Your task to perform on an android device: Add dell alienware to the cart on walmart, then select checkout. Image 0: 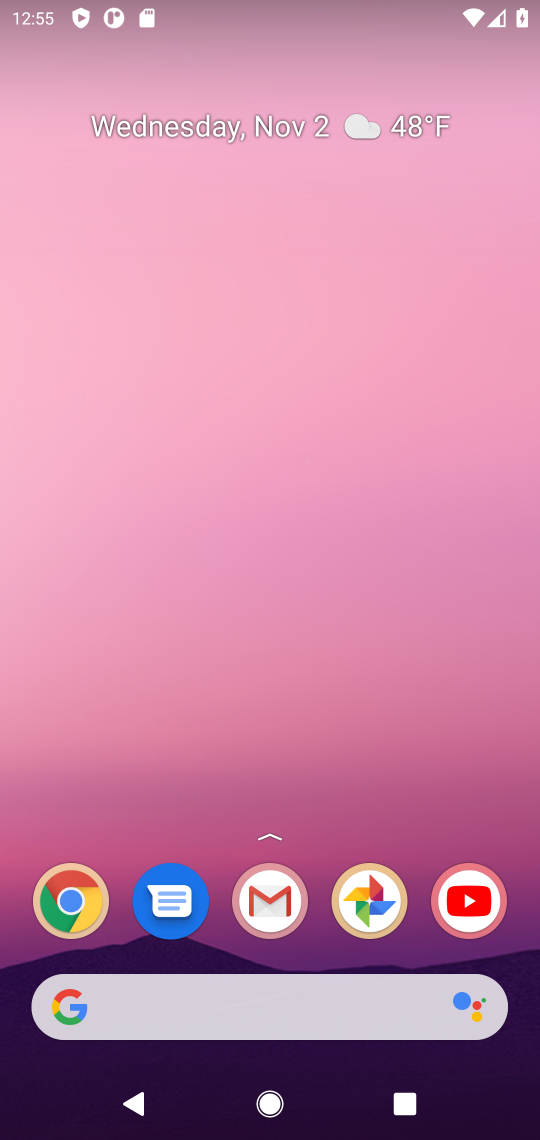
Step 0: drag from (320, 959) to (490, 155)
Your task to perform on an android device: Add dell alienware to the cart on walmart, then select checkout. Image 1: 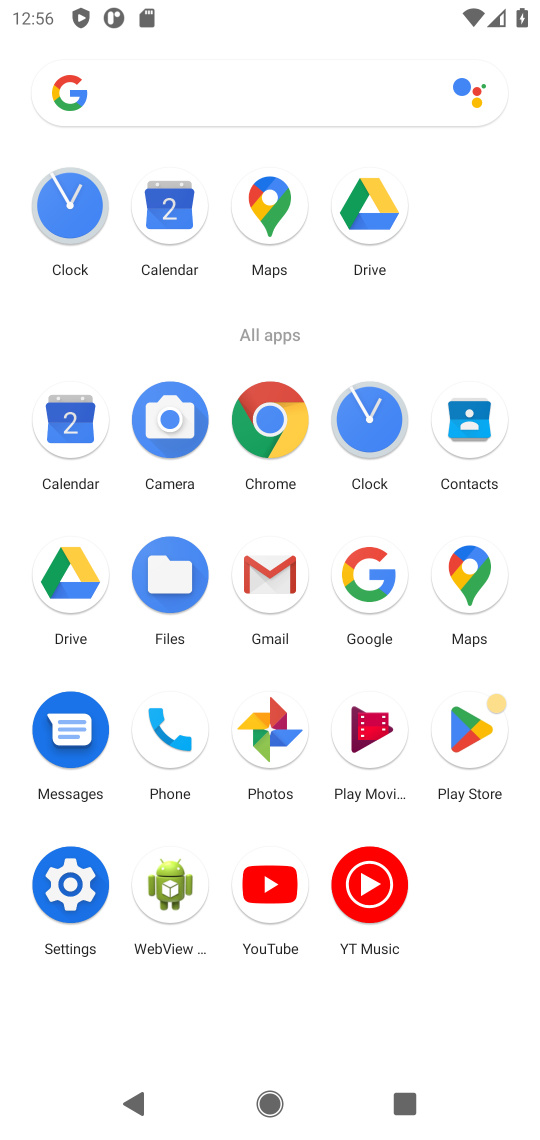
Step 1: click (265, 427)
Your task to perform on an android device: Add dell alienware to the cart on walmart, then select checkout. Image 2: 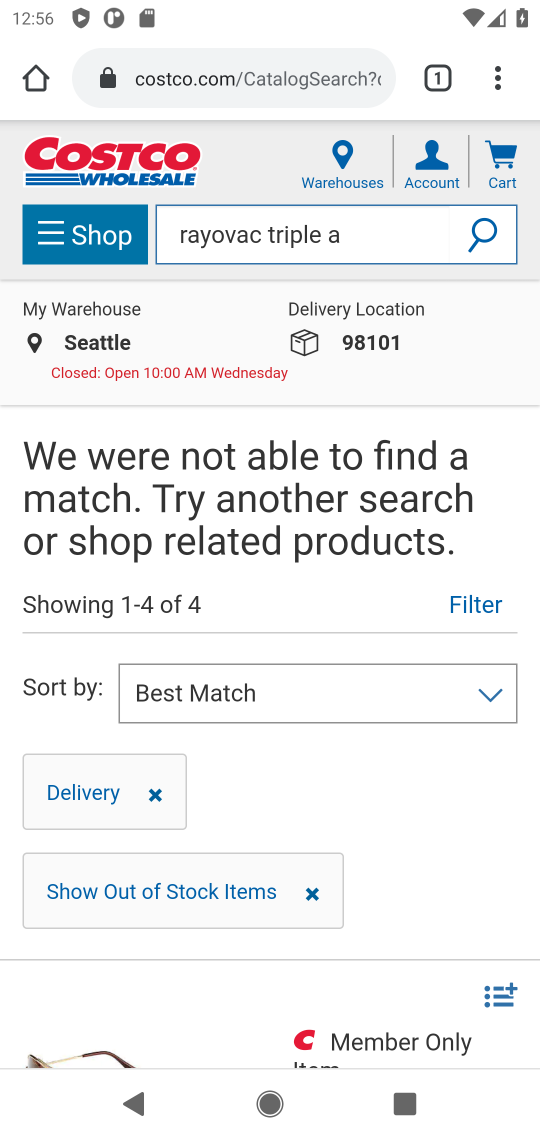
Step 2: click (285, 78)
Your task to perform on an android device: Add dell alienware to the cart on walmart, then select checkout. Image 3: 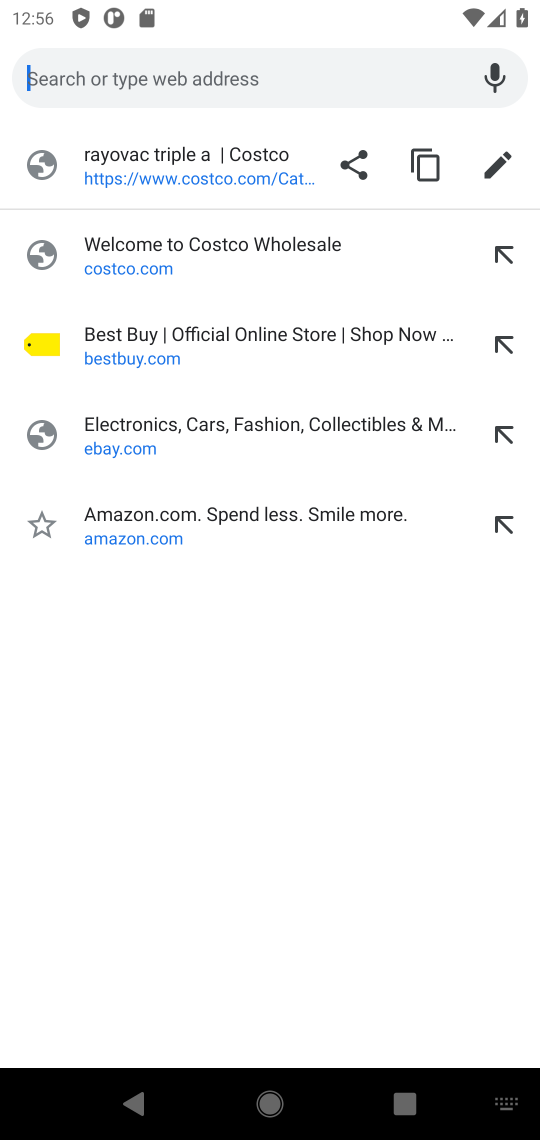
Step 3: type "walmart.com"
Your task to perform on an android device: Add dell alienware to the cart on walmart, then select checkout. Image 4: 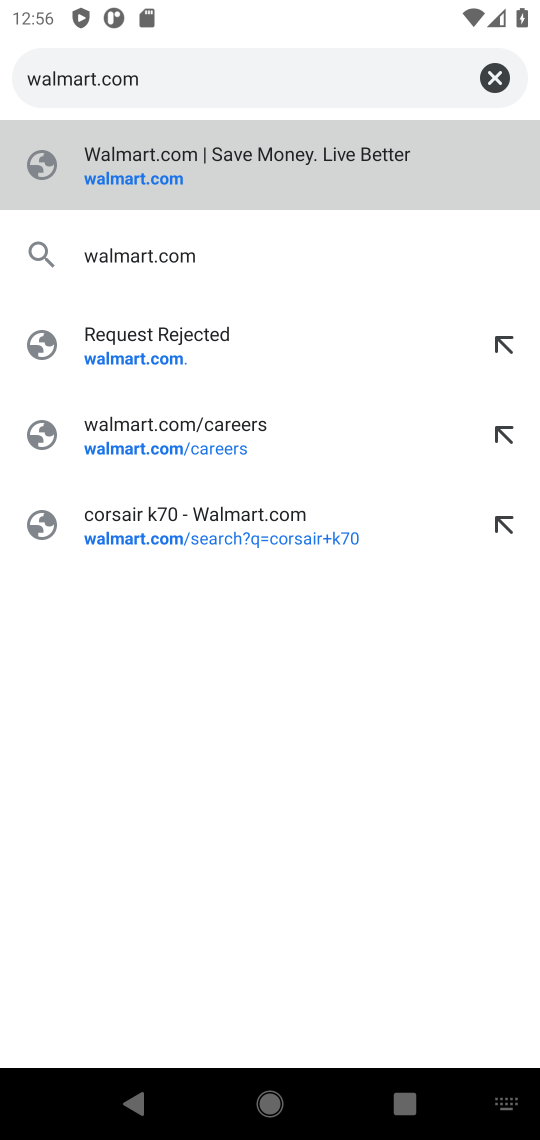
Step 4: press enter
Your task to perform on an android device: Add dell alienware to the cart on walmart, then select checkout. Image 5: 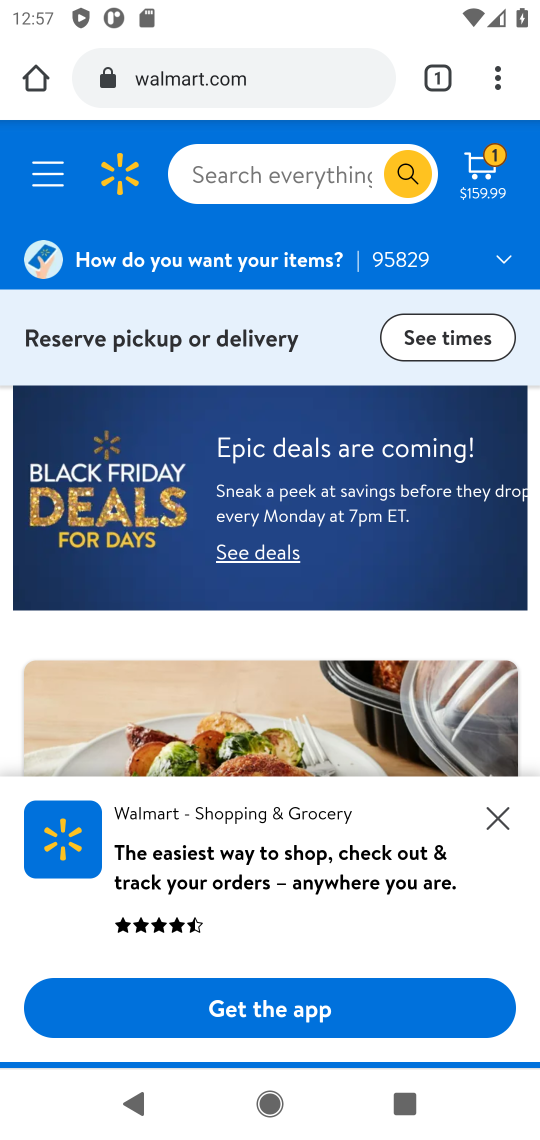
Step 5: click (286, 175)
Your task to perform on an android device: Add dell alienware to the cart on walmart, then select checkout. Image 6: 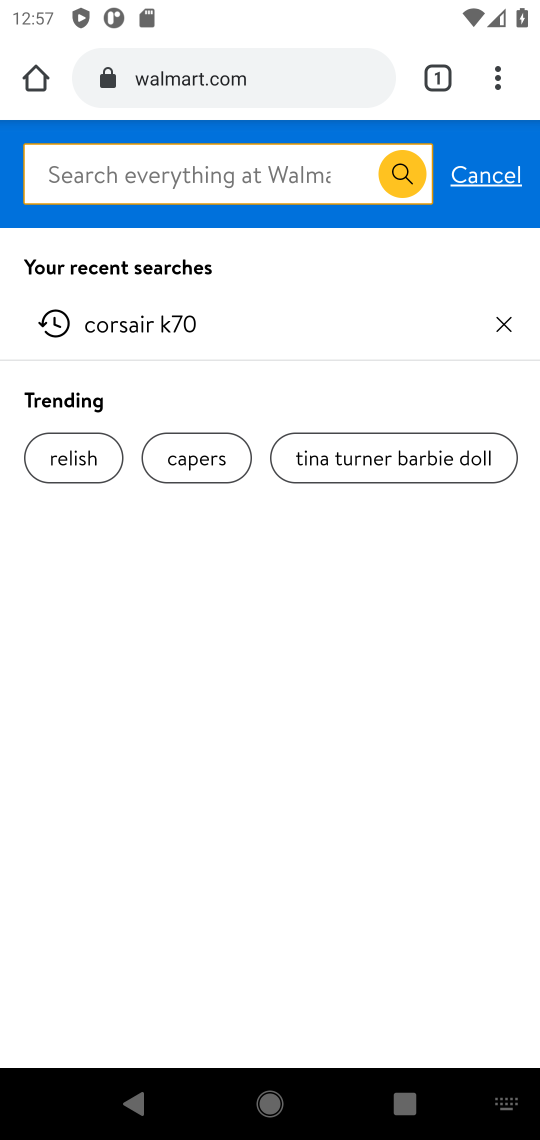
Step 6: type "dell alienware"
Your task to perform on an android device: Add dell alienware to the cart on walmart, then select checkout. Image 7: 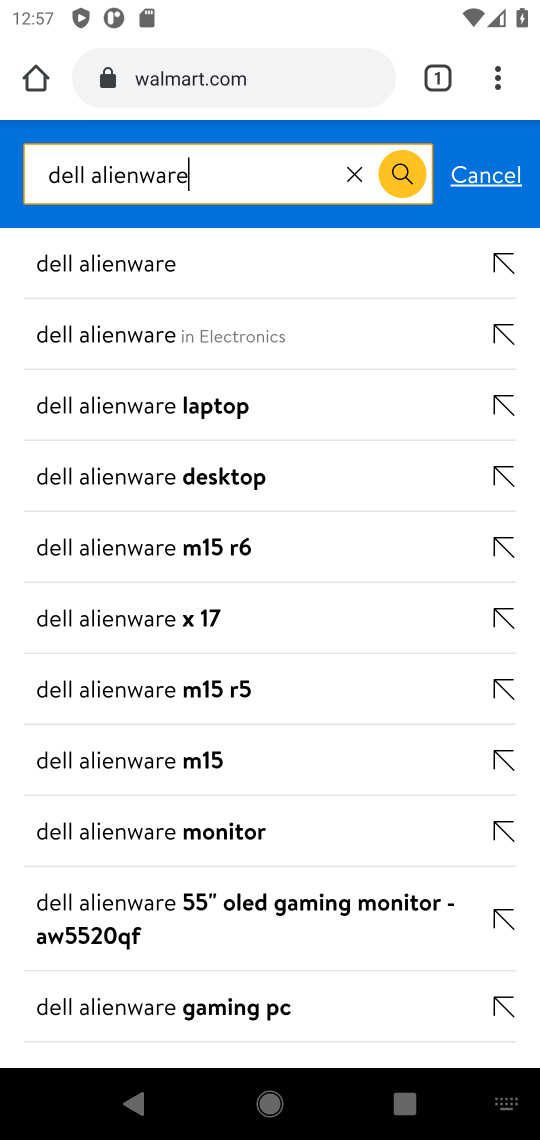
Step 7: press enter
Your task to perform on an android device: Add dell alienware to the cart on walmart, then select checkout. Image 8: 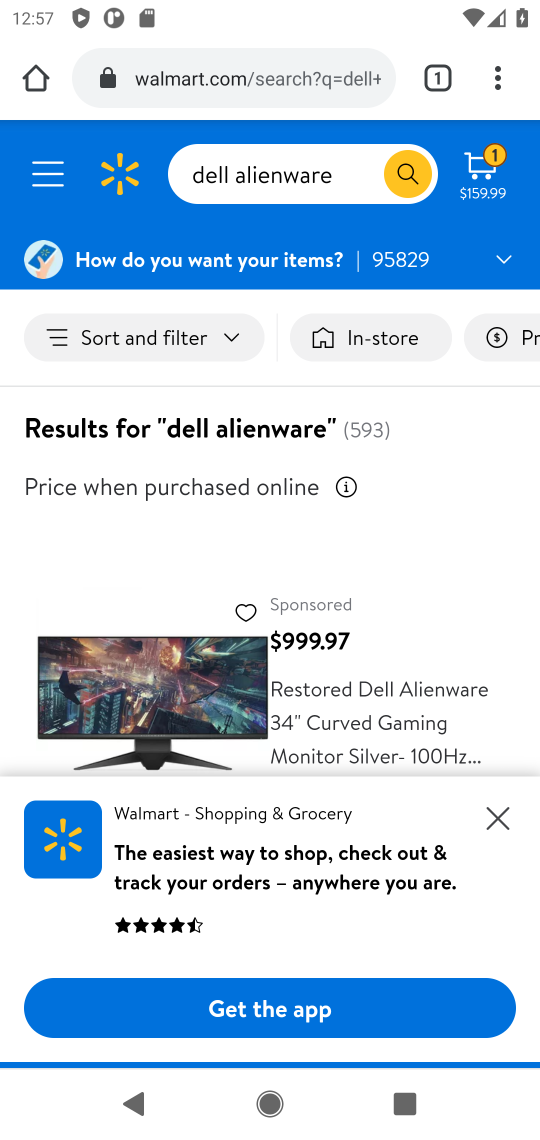
Step 8: drag from (209, 638) to (340, 115)
Your task to perform on an android device: Add dell alienware to the cart on walmart, then select checkout. Image 9: 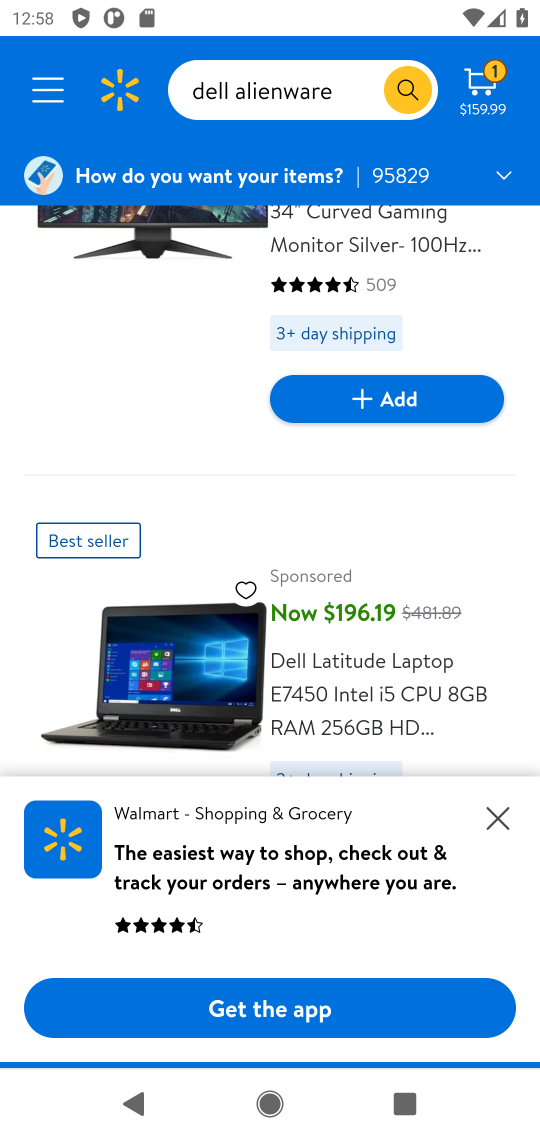
Step 9: click (357, 400)
Your task to perform on an android device: Add dell alienware to the cart on walmart, then select checkout. Image 10: 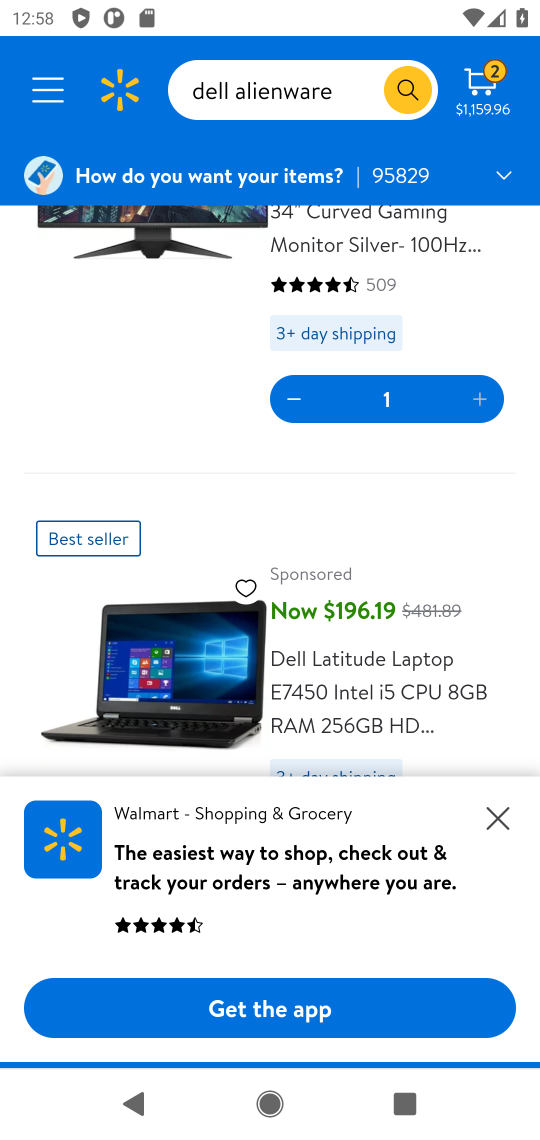
Step 10: click (484, 72)
Your task to perform on an android device: Add dell alienware to the cart on walmart, then select checkout. Image 11: 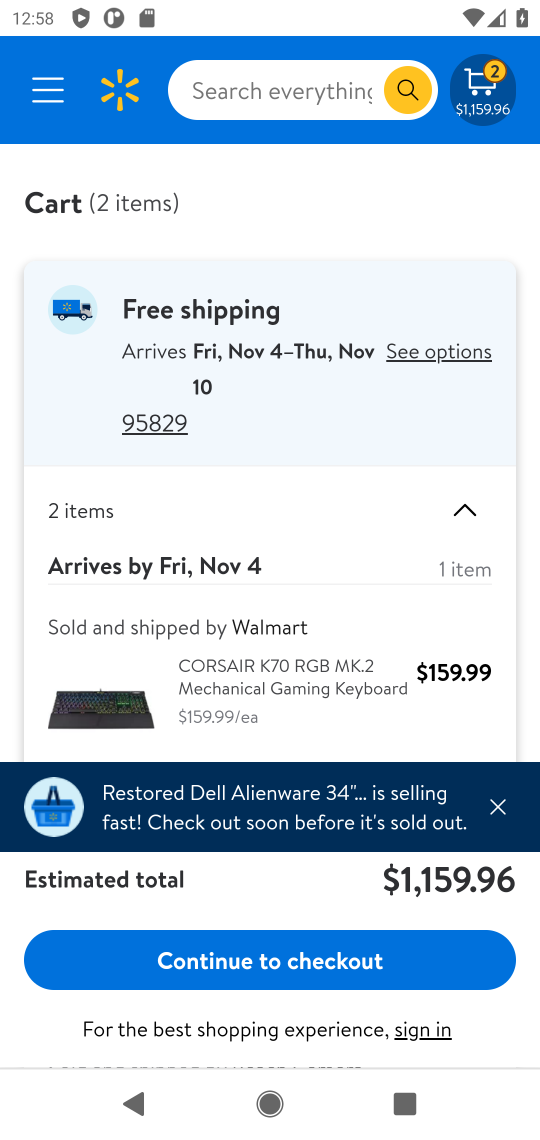
Step 11: click (336, 959)
Your task to perform on an android device: Add dell alienware to the cart on walmart, then select checkout. Image 12: 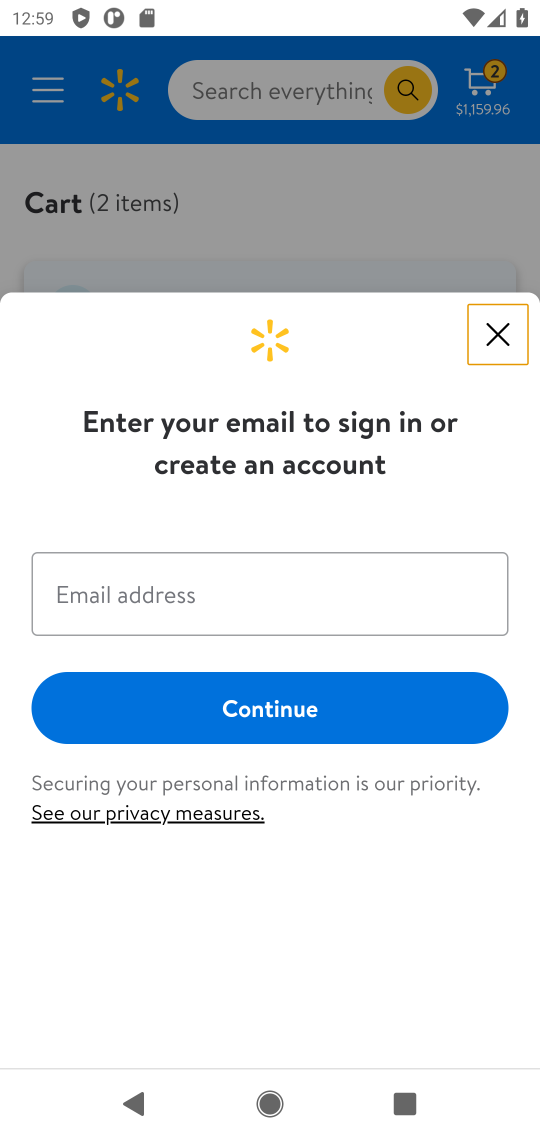
Step 12: task complete